Your task to perform on an android device: Search for Mexican restaurants on Maps Image 0: 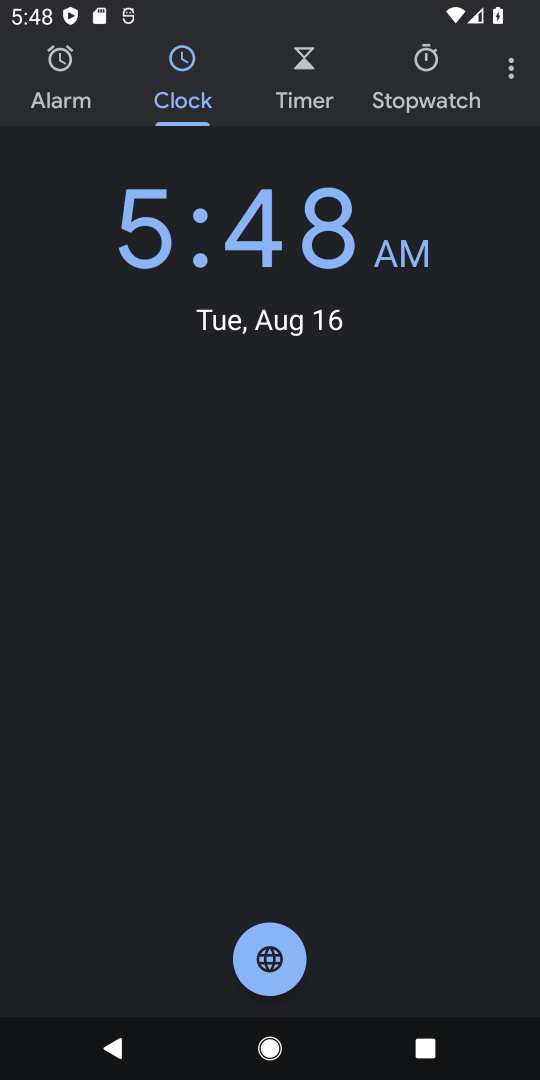
Step 0: press back button
Your task to perform on an android device: Search for Mexican restaurants on Maps Image 1: 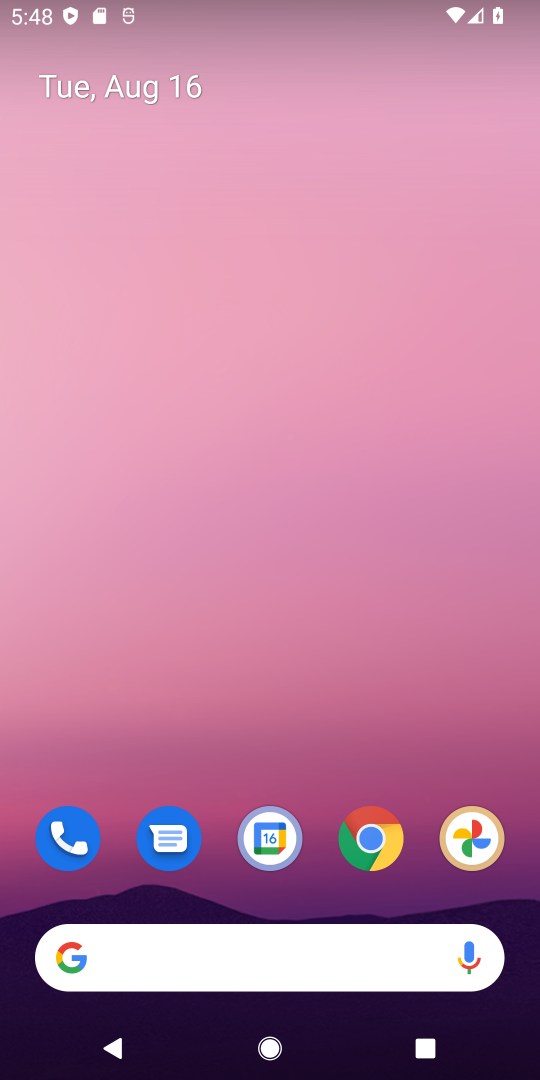
Step 1: drag from (235, 922) to (335, 178)
Your task to perform on an android device: Search for Mexican restaurants on Maps Image 2: 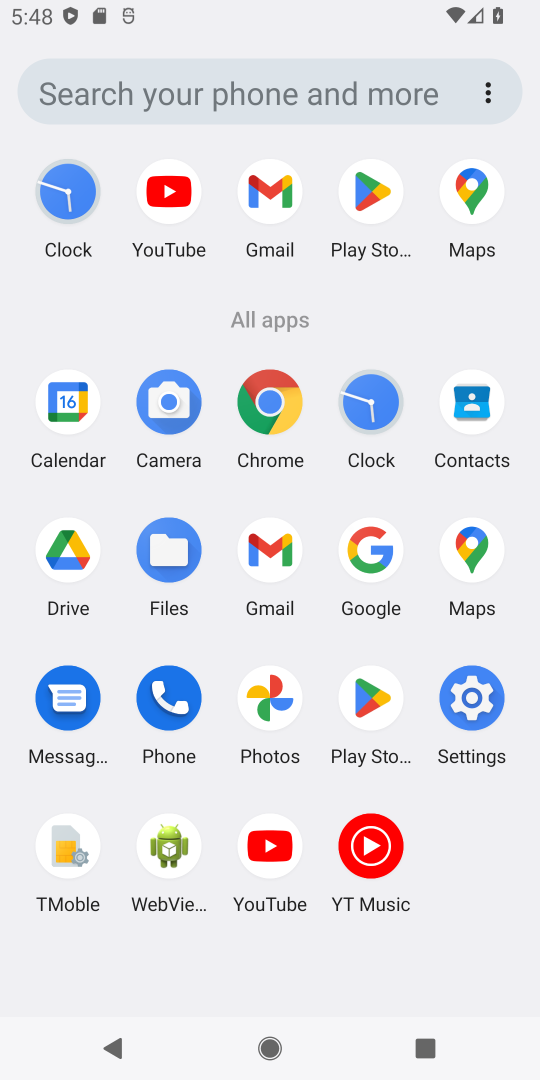
Step 2: click (476, 187)
Your task to perform on an android device: Search for Mexican restaurants on Maps Image 3: 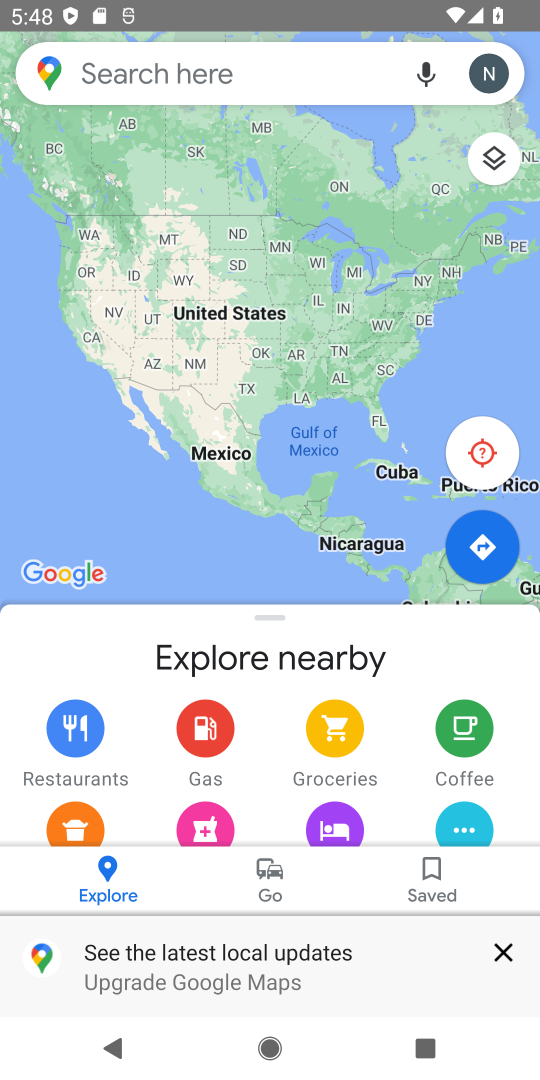
Step 3: click (204, 77)
Your task to perform on an android device: Search for Mexican restaurants on Maps Image 4: 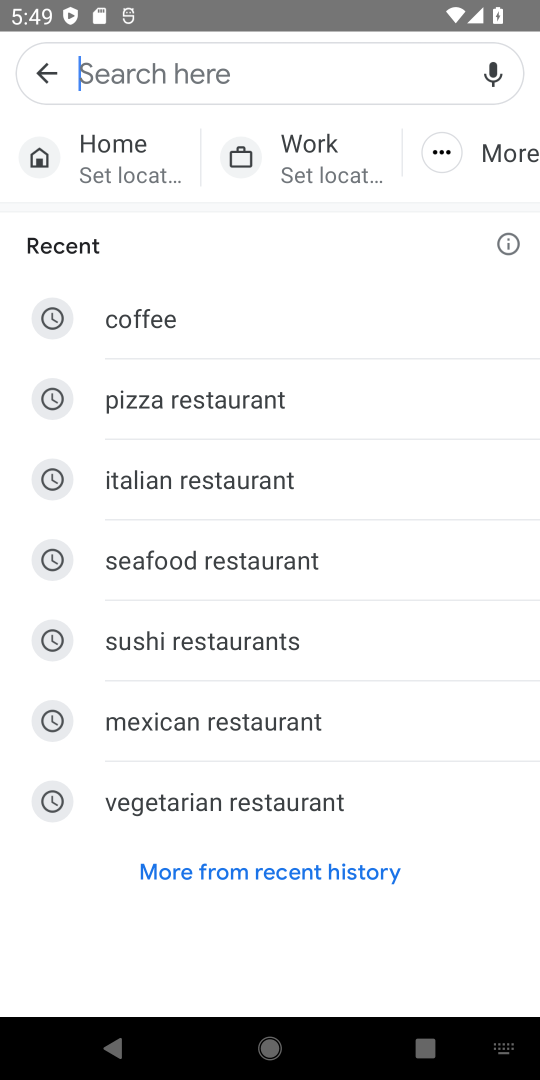
Step 4: click (194, 720)
Your task to perform on an android device: Search for Mexican restaurants on Maps Image 5: 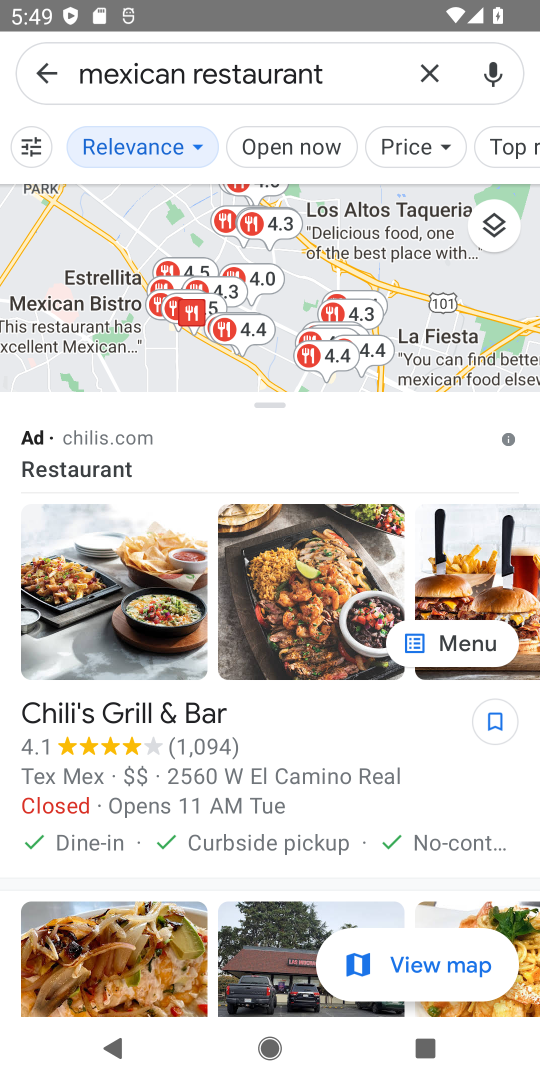
Step 5: task complete